Your task to perform on an android device: Open Youtube and go to "Your channel" Image 0: 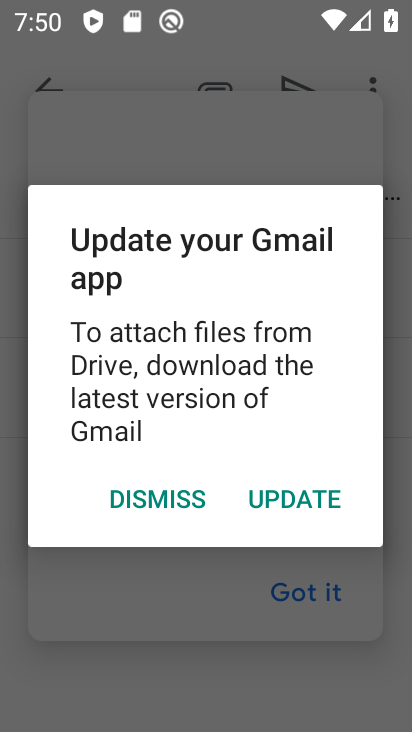
Step 0: press home button
Your task to perform on an android device: Open Youtube and go to "Your channel" Image 1: 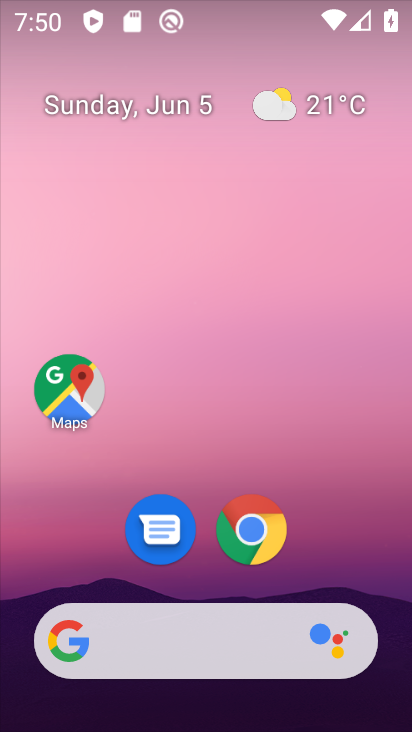
Step 1: drag from (203, 711) to (220, 0)
Your task to perform on an android device: Open Youtube and go to "Your channel" Image 2: 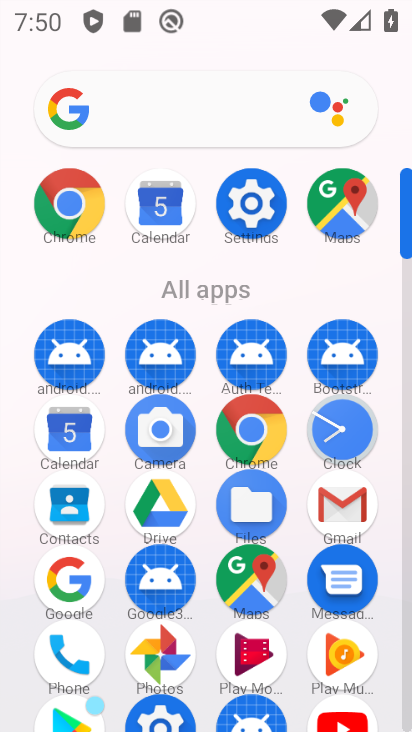
Step 2: click (350, 716)
Your task to perform on an android device: Open Youtube and go to "Your channel" Image 3: 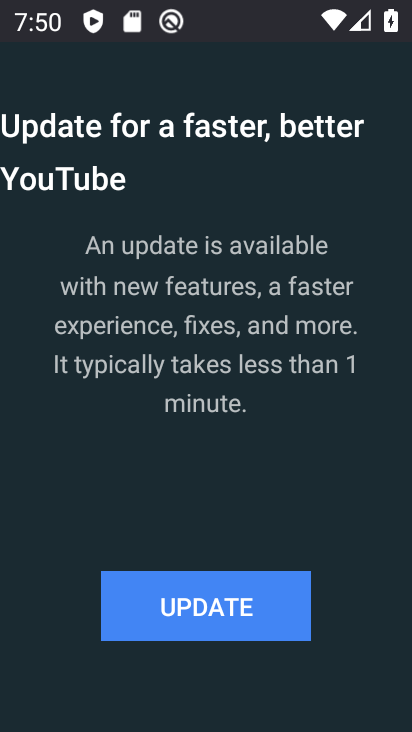
Step 3: click (231, 599)
Your task to perform on an android device: Open Youtube and go to "Your channel" Image 4: 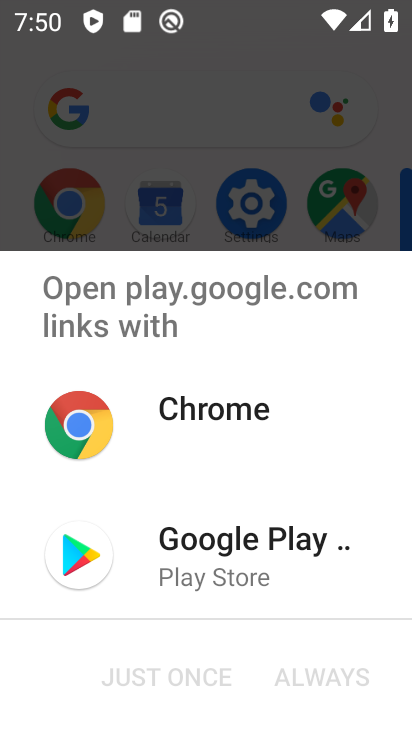
Step 4: click (180, 571)
Your task to perform on an android device: Open Youtube and go to "Your channel" Image 5: 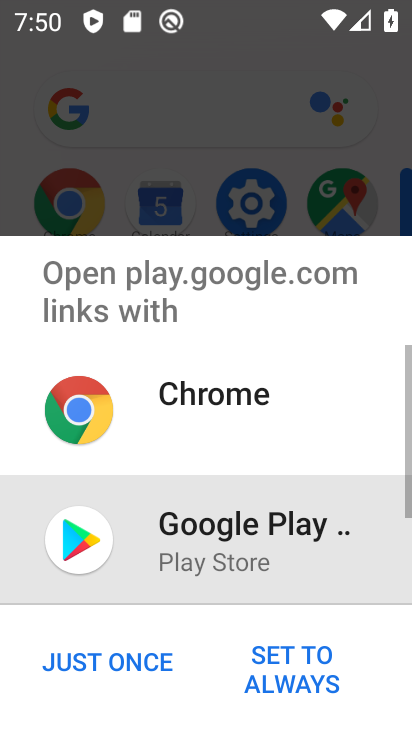
Step 5: click (189, 680)
Your task to perform on an android device: Open Youtube and go to "Your channel" Image 6: 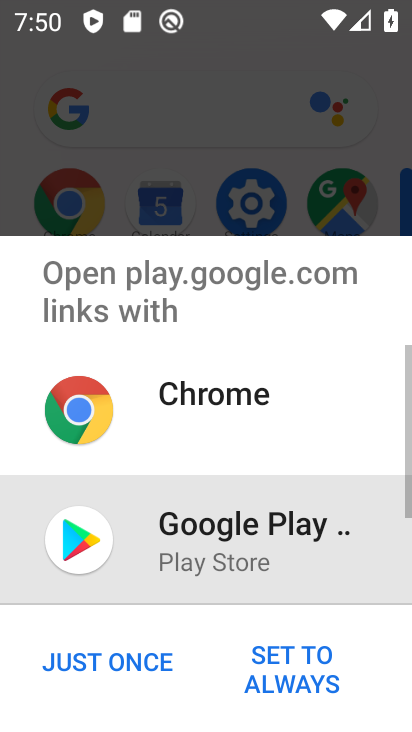
Step 6: click (63, 673)
Your task to perform on an android device: Open Youtube and go to "Your channel" Image 7: 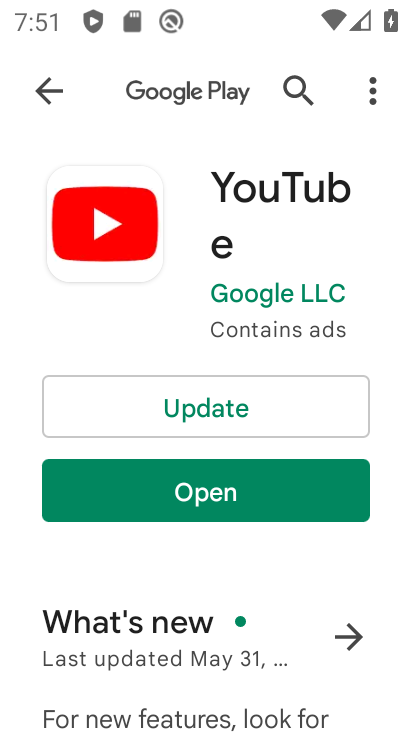
Step 7: click (204, 421)
Your task to perform on an android device: Open Youtube and go to "Your channel" Image 8: 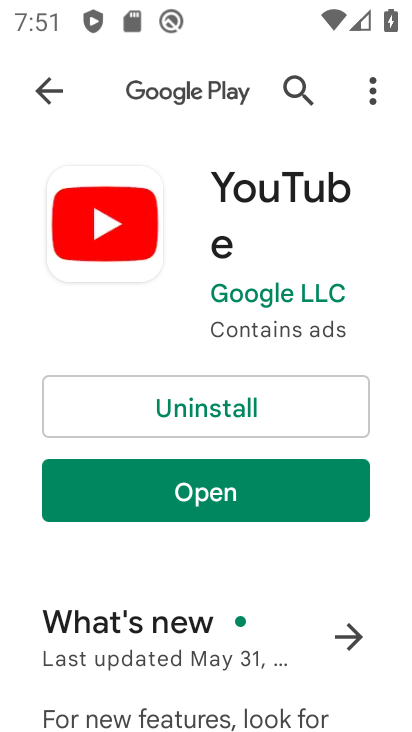
Step 8: click (276, 486)
Your task to perform on an android device: Open Youtube and go to "Your channel" Image 9: 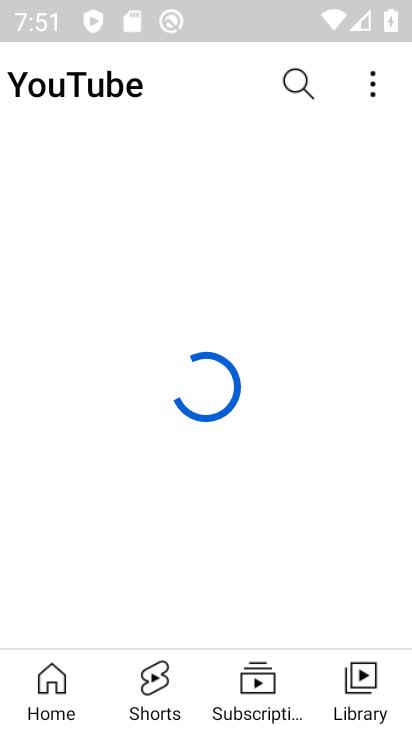
Step 9: click (372, 72)
Your task to perform on an android device: Open Youtube and go to "Your channel" Image 10: 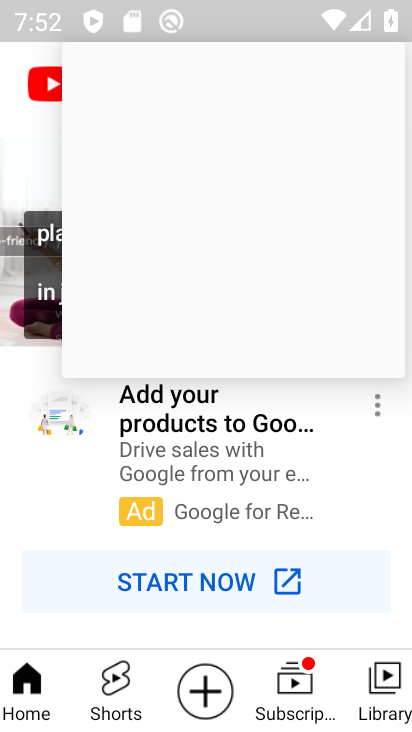
Step 10: click (357, 485)
Your task to perform on an android device: Open Youtube and go to "Your channel" Image 11: 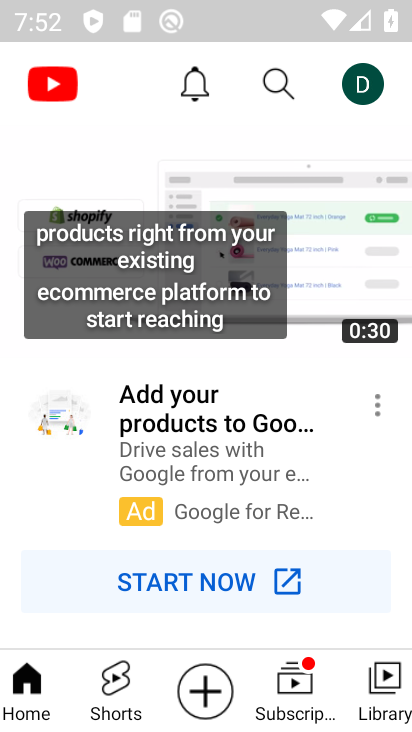
Step 11: click (369, 85)
Your task to perform on an android device: Open Youtube and go to "Your channel" Image 12: 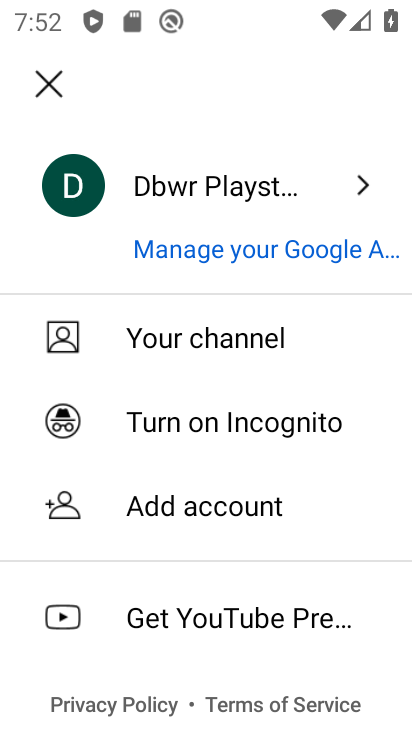
Step 12: click (237, 339)
Your task to perform on an android device: Open Youtube and go to "Your channel" Image 13: 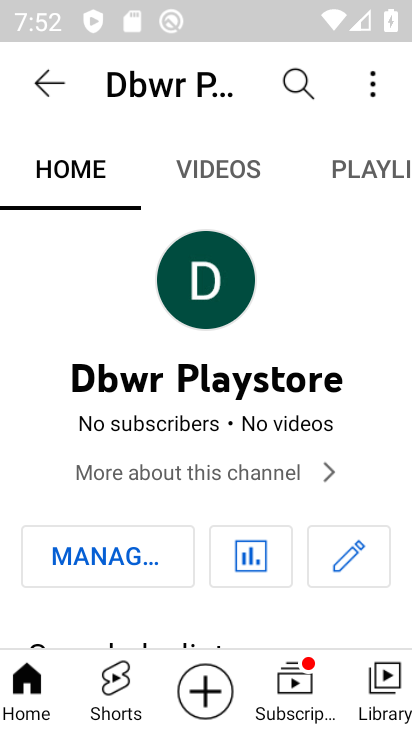
Step 13: task complete